Your task to perform on an android device: turn off notifications settings in the gmail app Image 0: 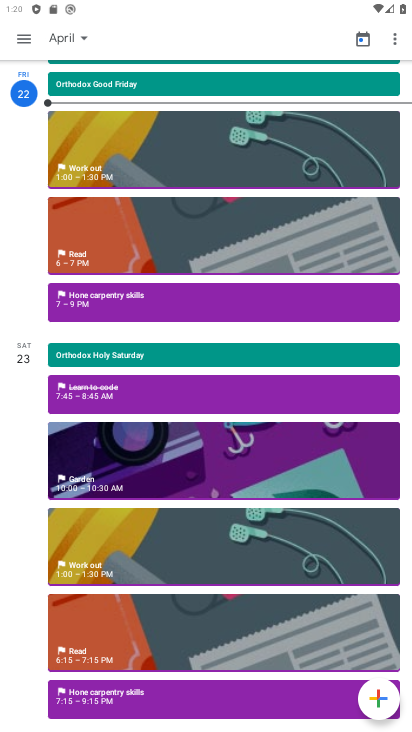
Step 0: press home button
Your task to perform on an android device: turn off notifications settings in the gmail app Image 1: 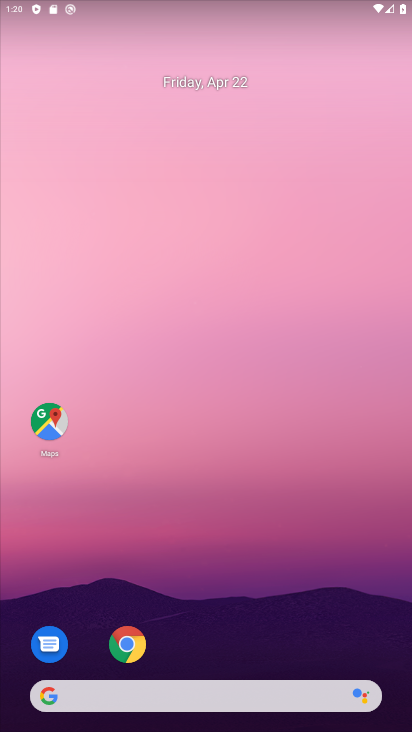
Step 1: drag from (295, 599) to (221, 215)
Your task to perform on an android device: turn off notifications settings in the gmail app Image 2: 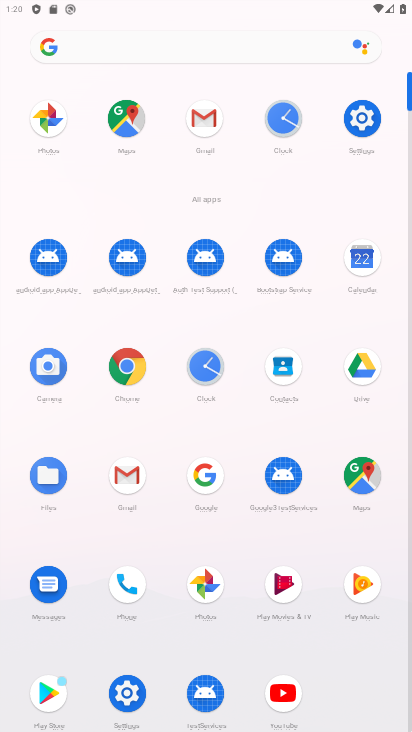
Step 2: click (205, 127)
Your task to perform on an android device: turn off notifications settings in the gmail app Image 3: 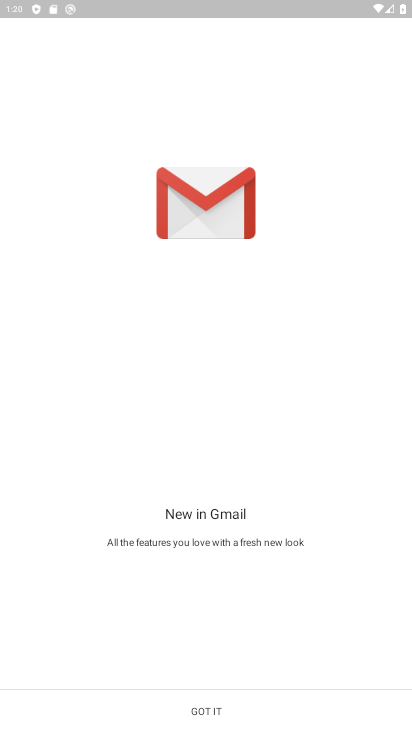
Step 3: click (205, 713)
Your task to perform on an android device: turn off notifications settings in the gmail app Image 4: 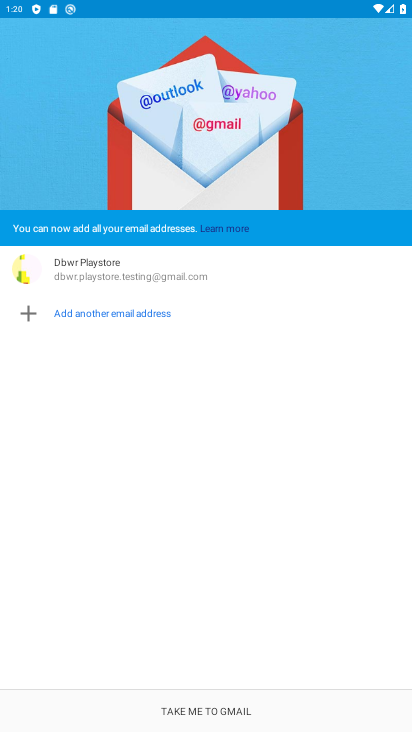
Step 4: click (205, 713)
Your task to perform on an android device: turn off notifications settings in the gmail app Image 5: 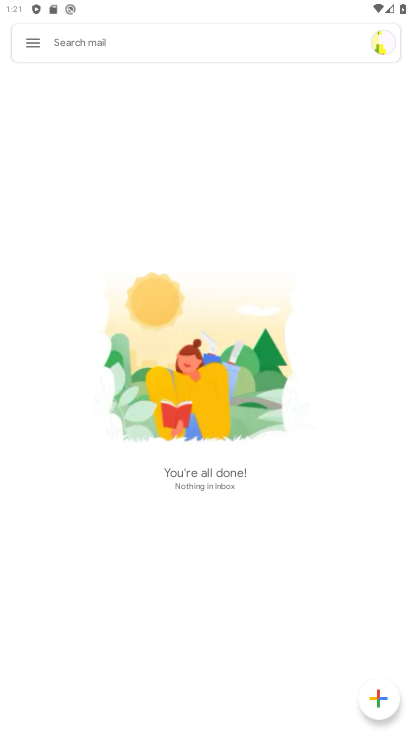
Step 5: click (27, 39)
Your task to perform on an android device: turn off notifications settings in the gmail app Image 6: 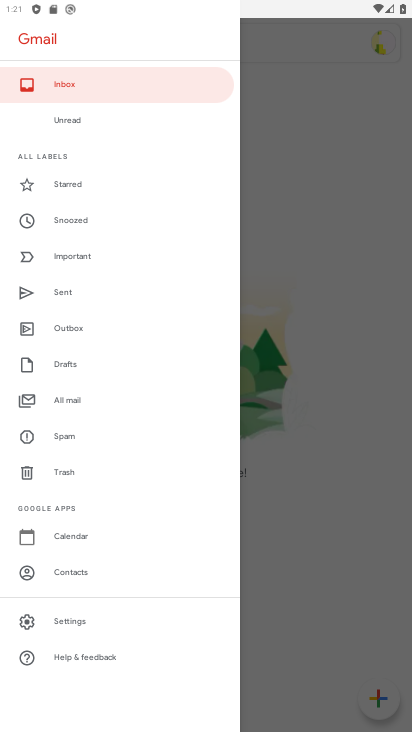
Step 6: click (117, 626)
Your task to perform on an android device: turn off notifications settings in the gmail app Image 7: 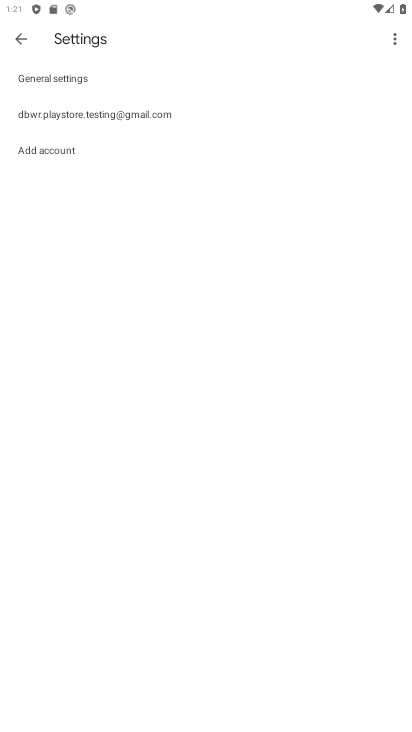
Step 7: click (140, 119)
Your task to perform on an android device: turn off notifications settings in the gmail app Image 8: 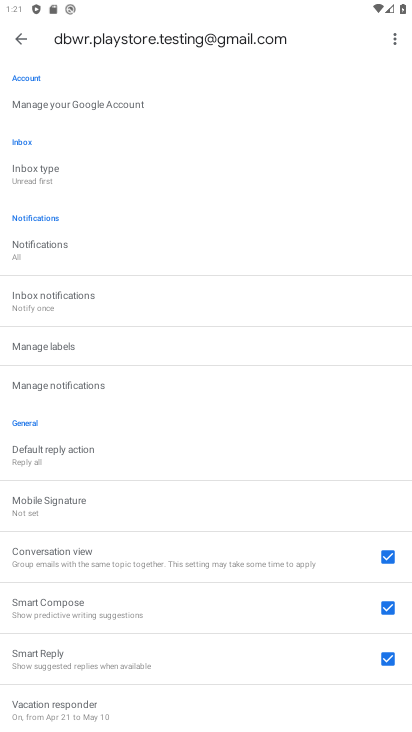
Step 8: click (140, 379)
Your task to perform on an android device: turn off notifications settings in the gmail app Image 9: 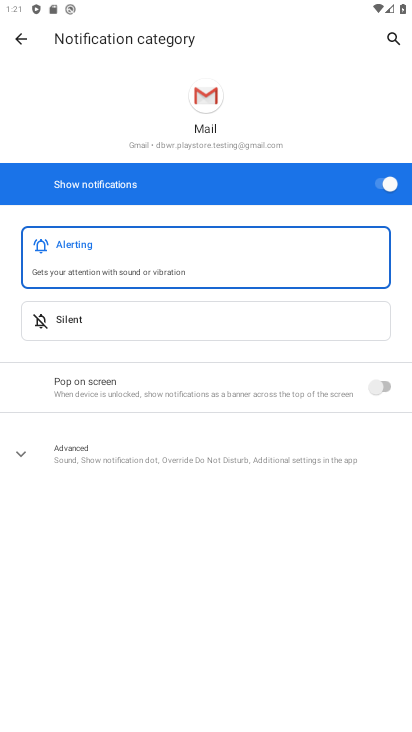
Step 9: task complete